Your task to perform on an android device: open app "Pluto TV - Live TV and Movies" (install if not already installed) and go to login screen Image 0: 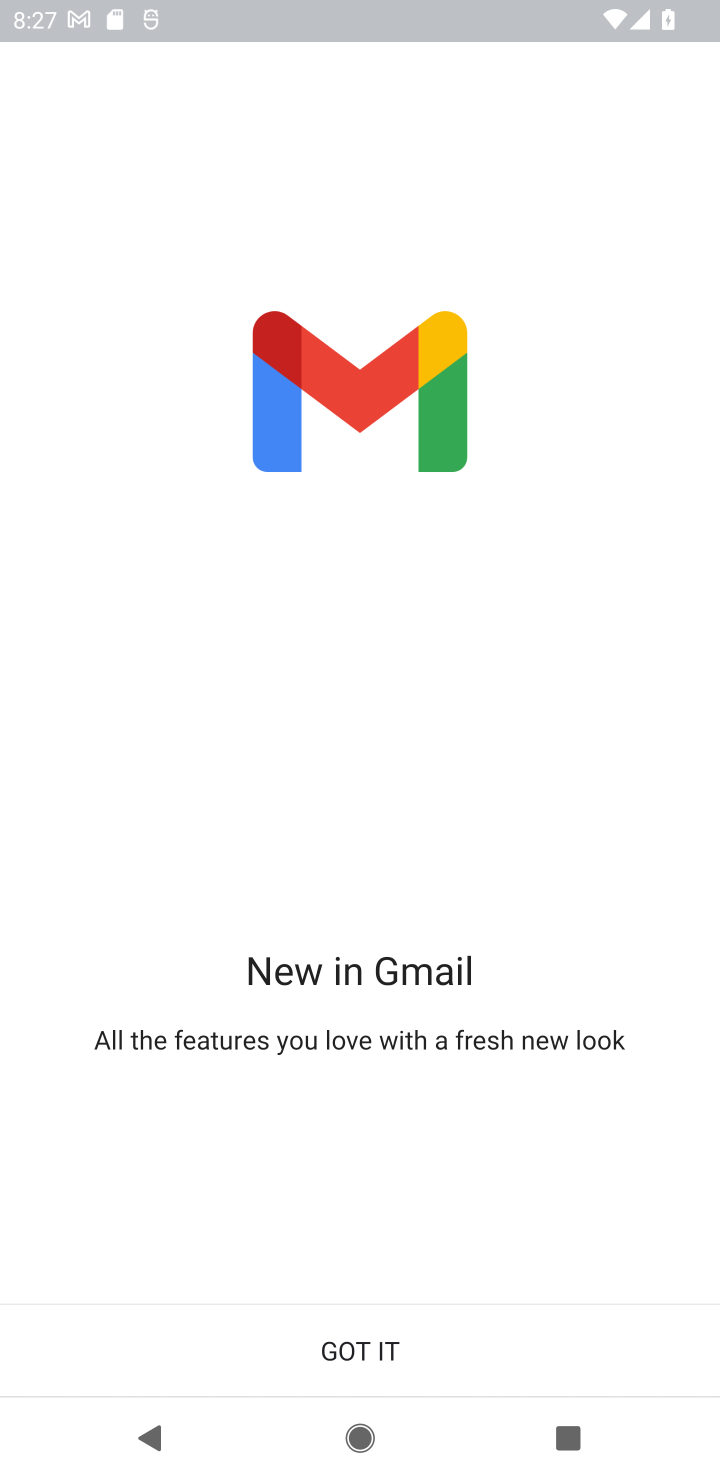
Step 0: press home button
Your task to perform on an android device: open app "Pluto TV - Live TV and Movies" (install if not already installed) and go to login screen Image 1: 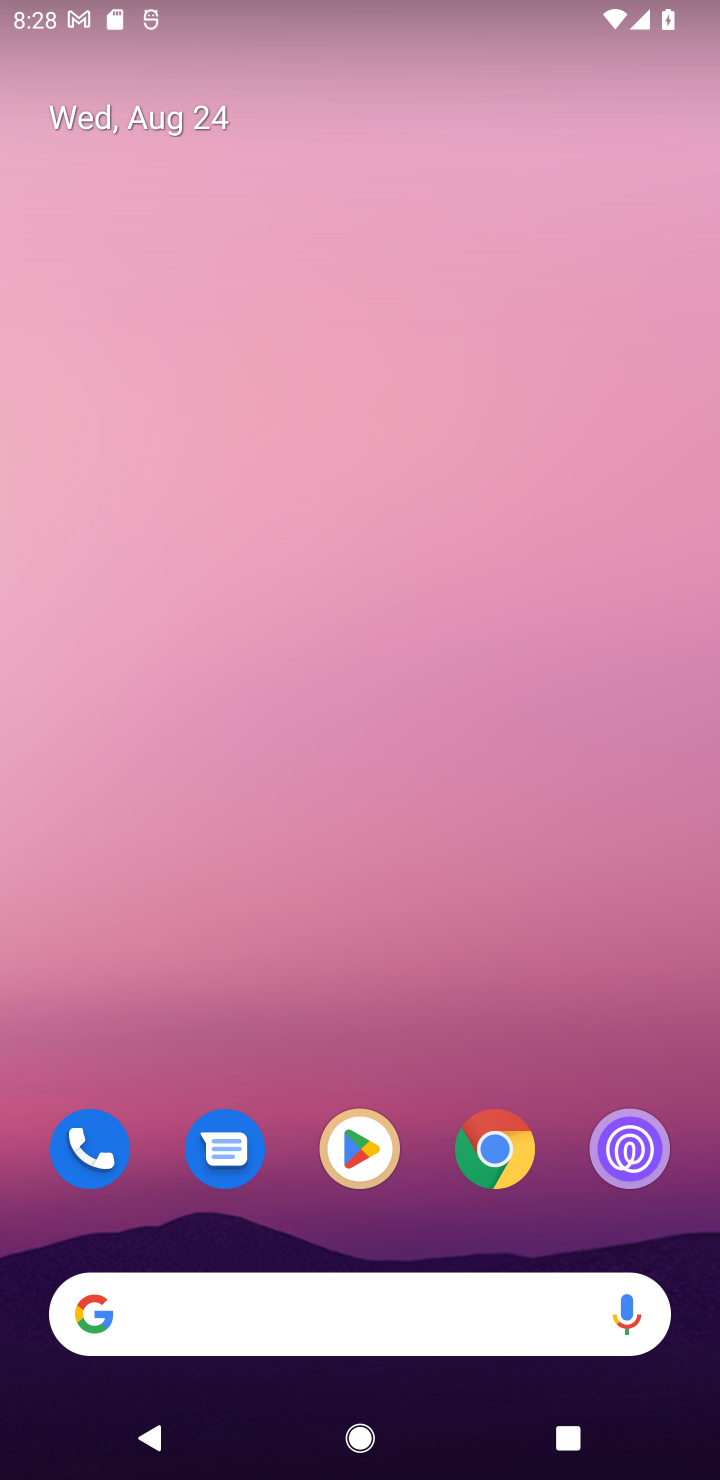
Step 1: click (326, 1146)
Your task to perform on an android device: open app "Pluto TV - Live TV and Movies" (install if not already installed) and go to login screen Image 2: 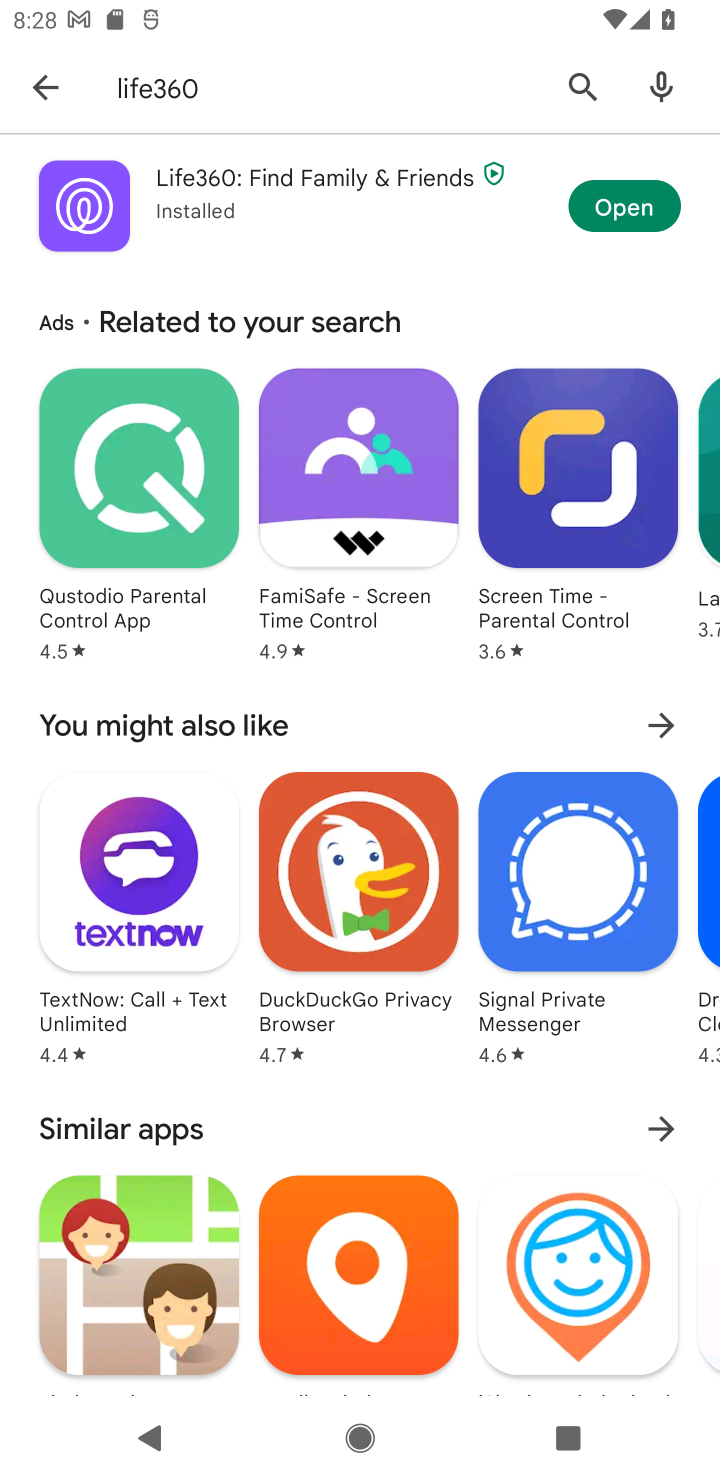
Step 2: click (581, 61)
Your task to perform on an android device: open app "Pluto TV - Live TV and Movies" (install if not already installed) and go to login screen Image 3: 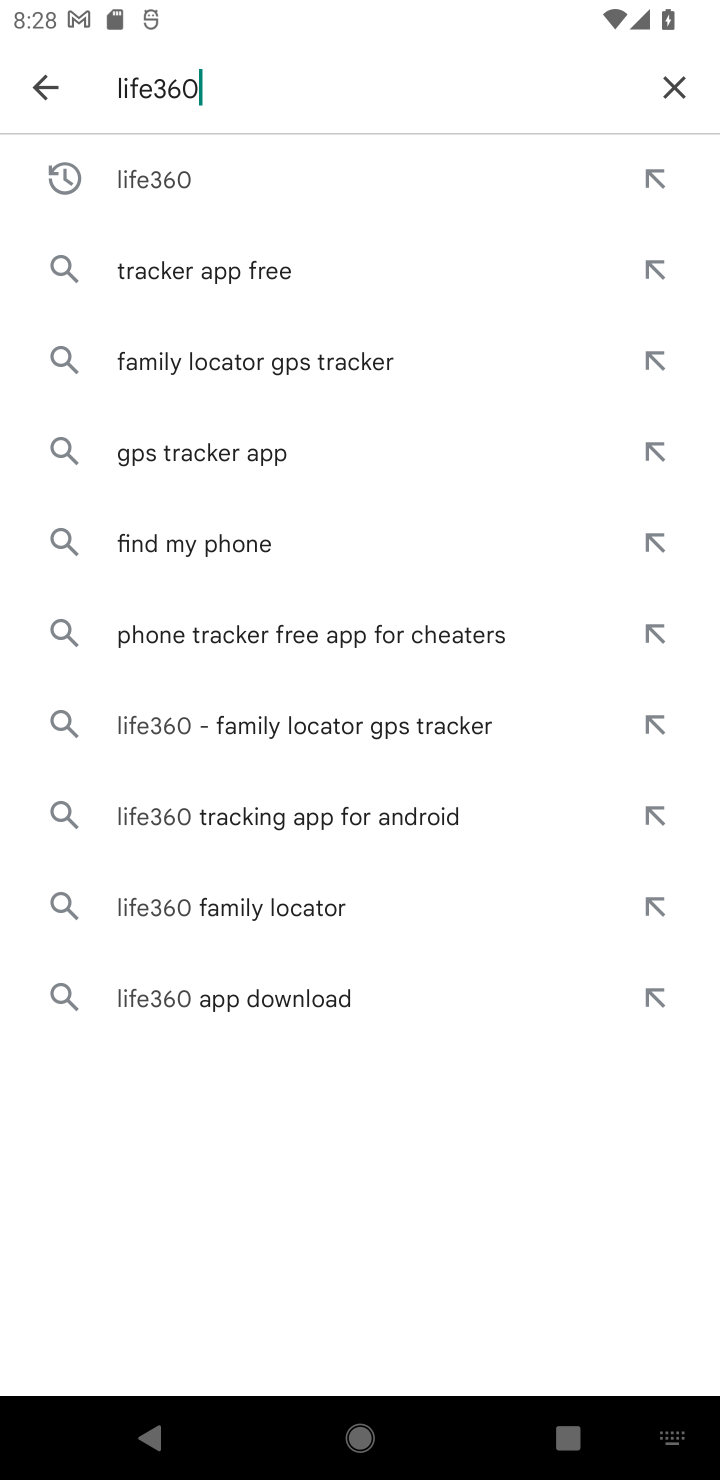
Step 3: click (677, 98)
Your task to perform on an android device: open app "Pluto TV - Live TV and Movies" (install if not already installed) and go to login screen Image 4: 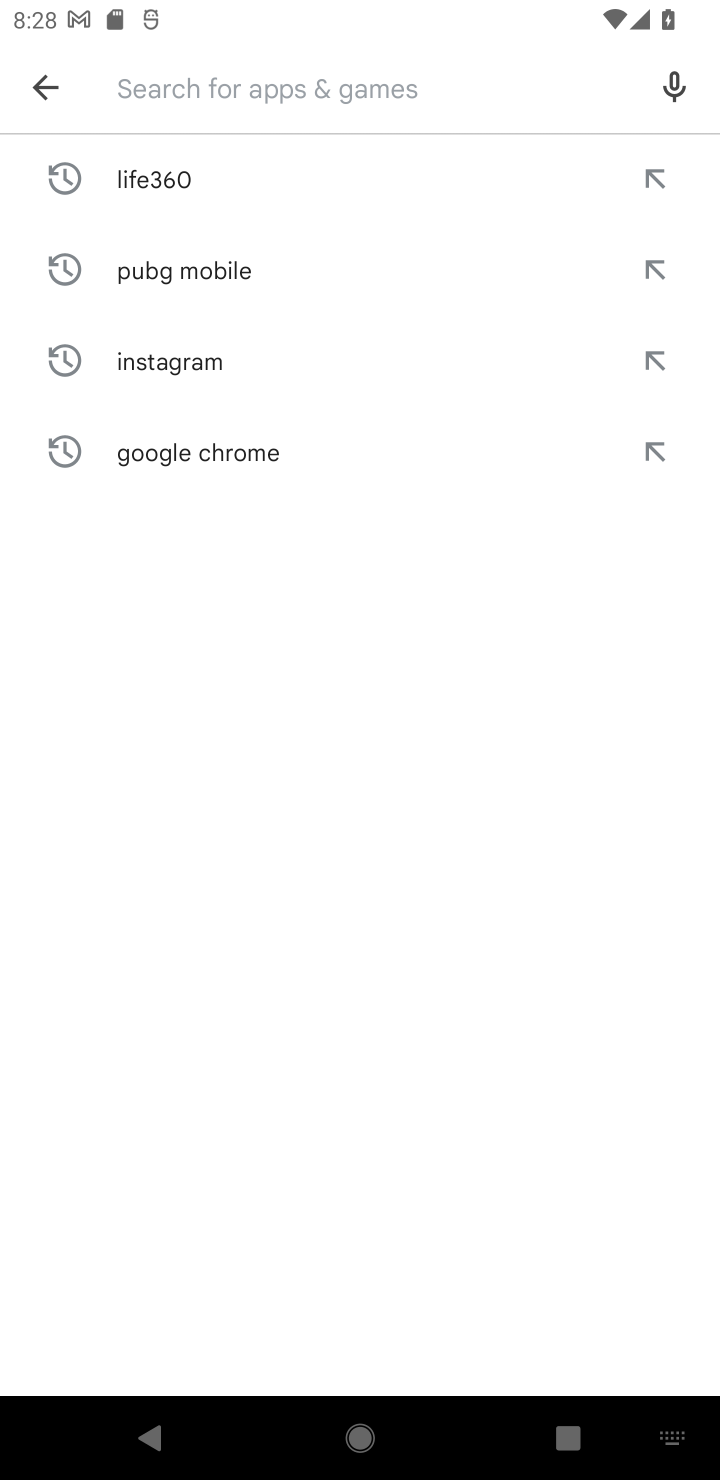
Step 4: type "Pluto TV - Live TV and Movies"
Your task to perform on an android device: open app "Pluto TV - Live TV and Movies" (install if not already installed) and go to login screen Image 5: 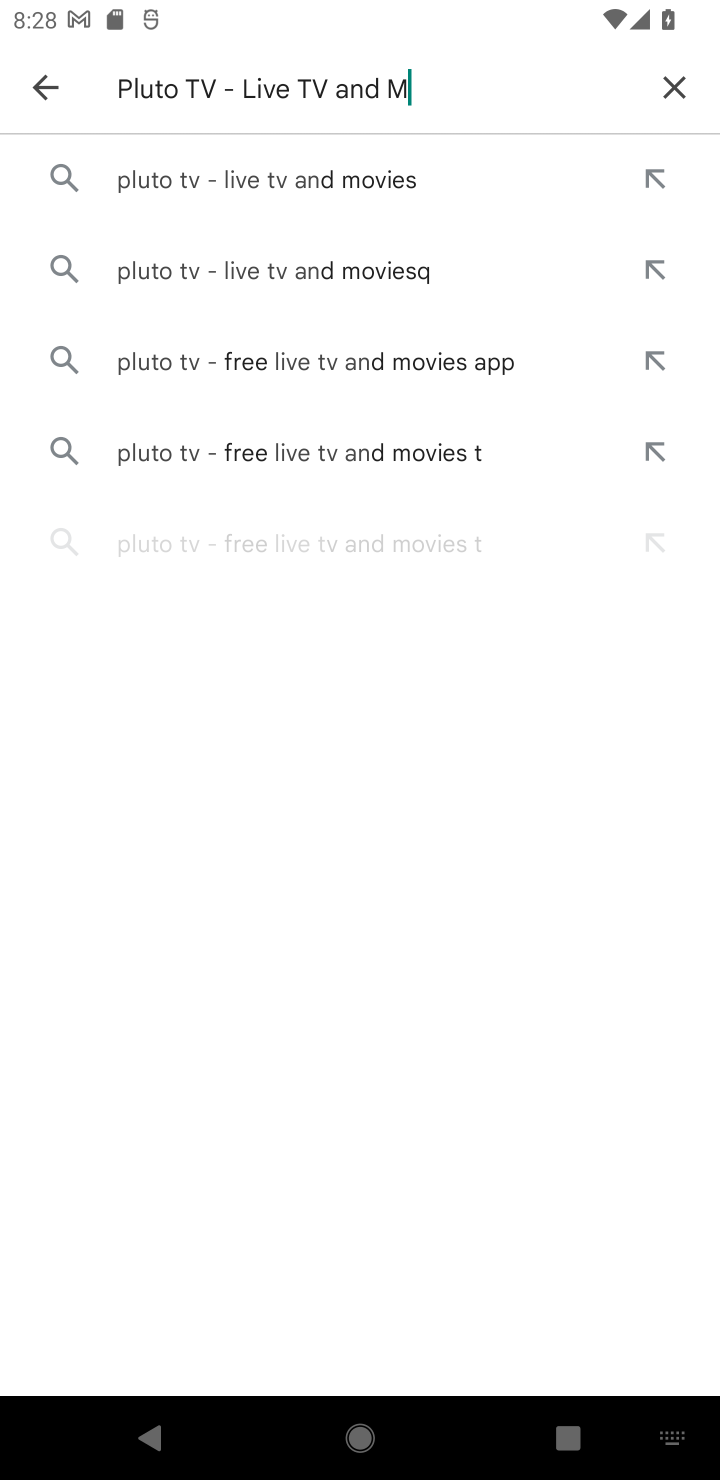
Step 5: type ""
Your task to perform on an android device: open app "Pluto TV - Live TV and Movies" (install if not already installed) and go to login screen Image 6: 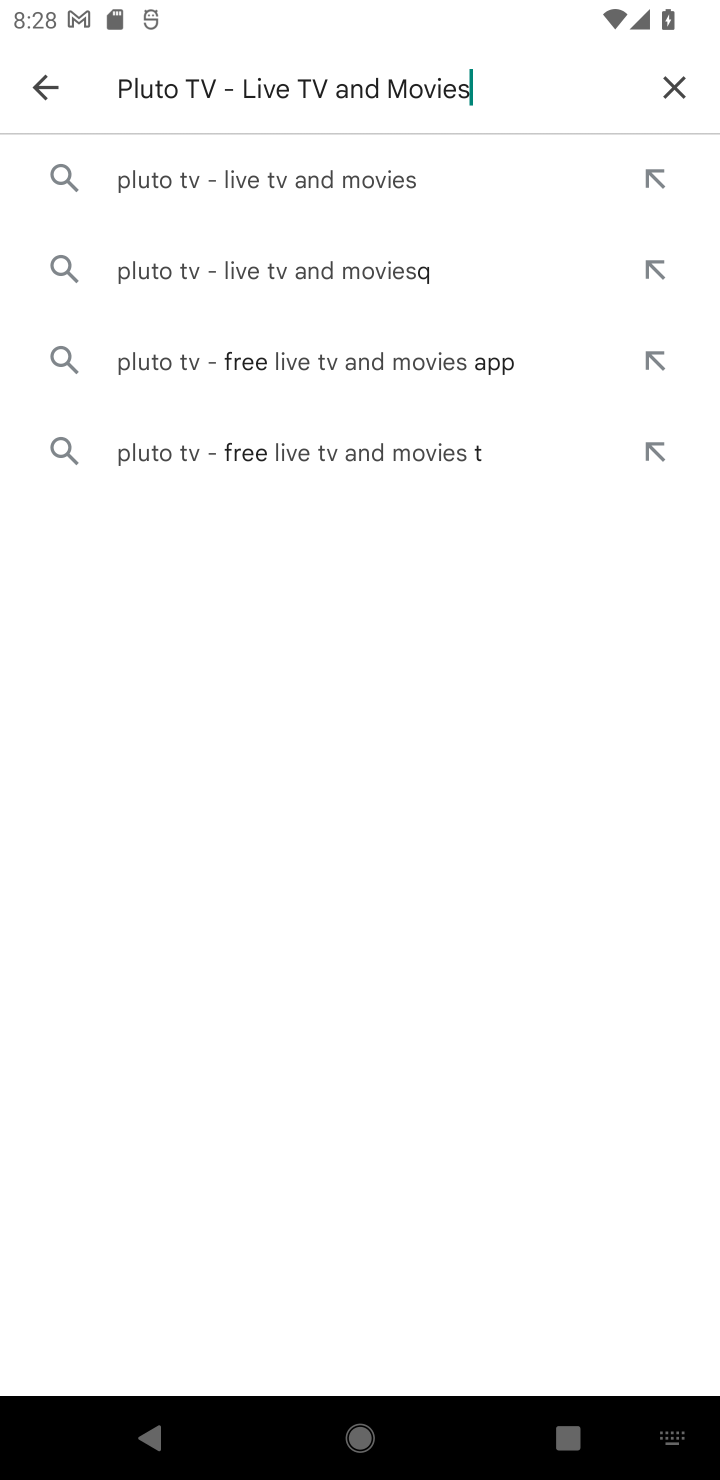
Step 6: click (379, 184)
Your task to perform on an android device: open app "Pluto TV - Live TV and Movies" (install if not already installed) and go to login screen Image 7: 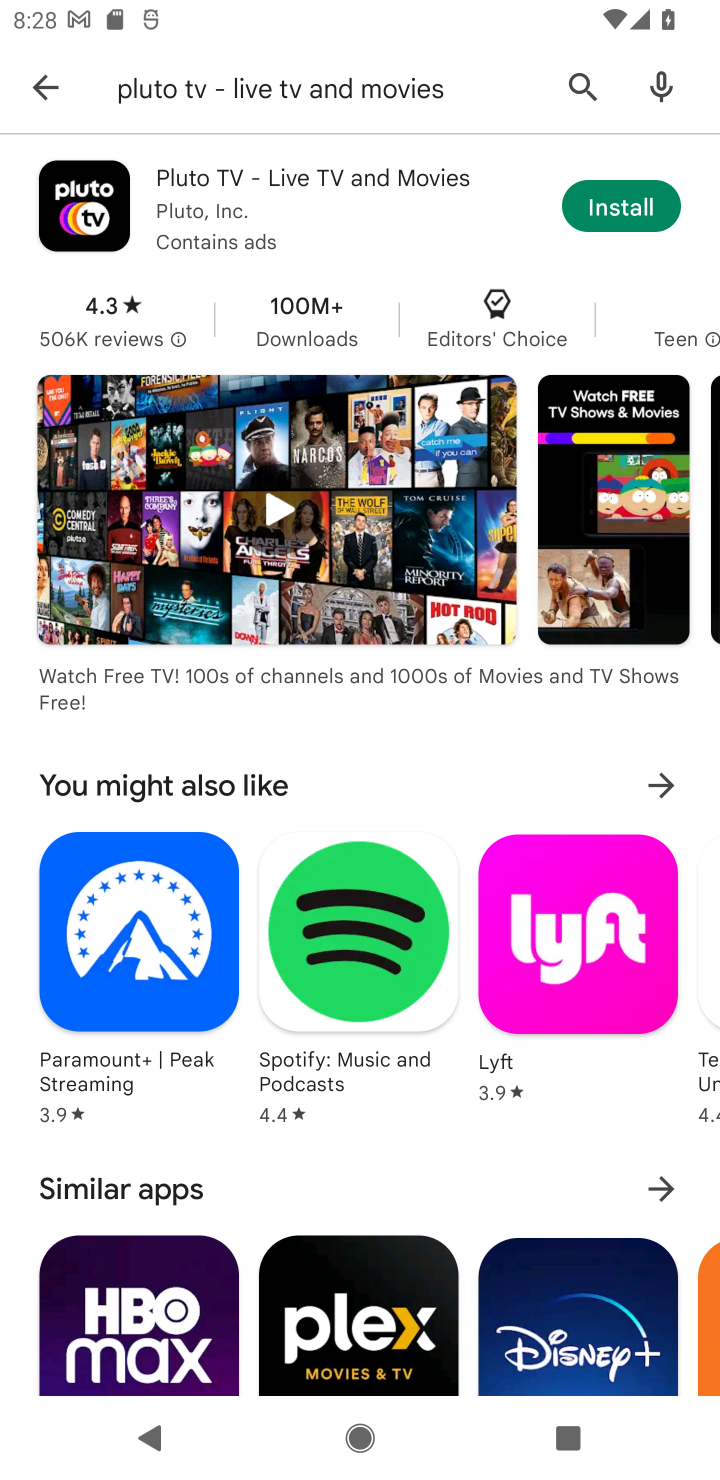
Step 7: click (599, 213)
Your task to perform on an android device: open app "Pluto TV - Live TV and Movies" (install if not already installed) and go to login screen Image 8: 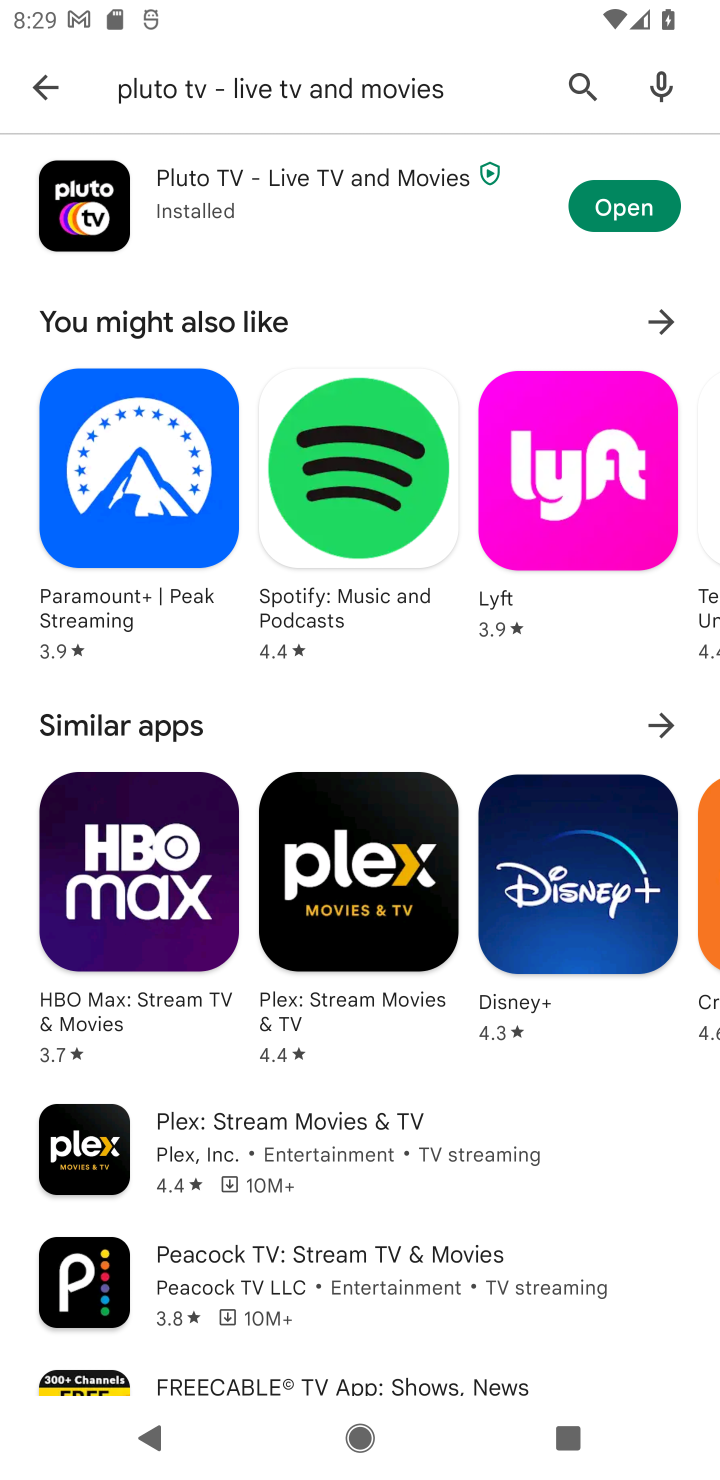
Step 8: click (613, 203)
Your task to perform on an android device: open app "Pluto TV - Live TV and Movies" (install if not already installed) and go to login screen Image 9: 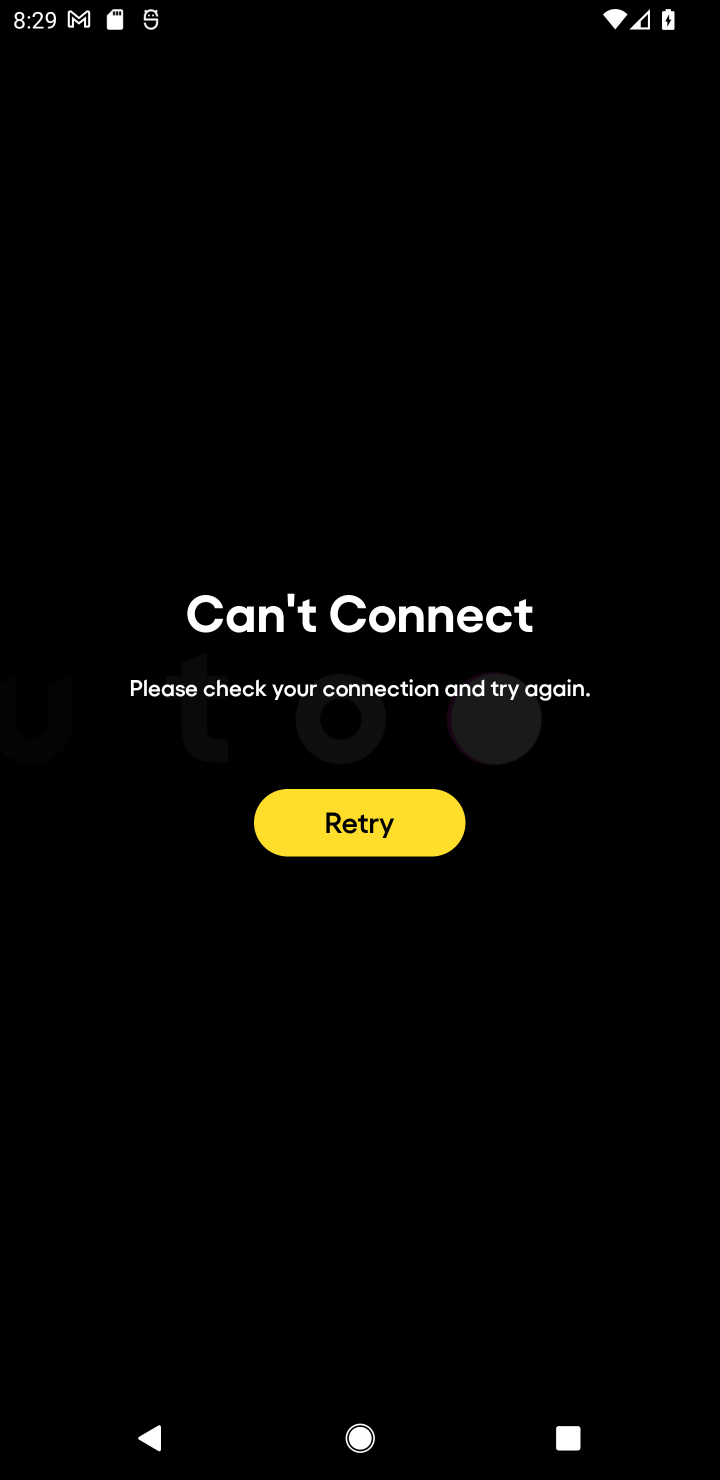
Step 9: task complete